Your task to perform on an android device: Open Amazon Image 0: 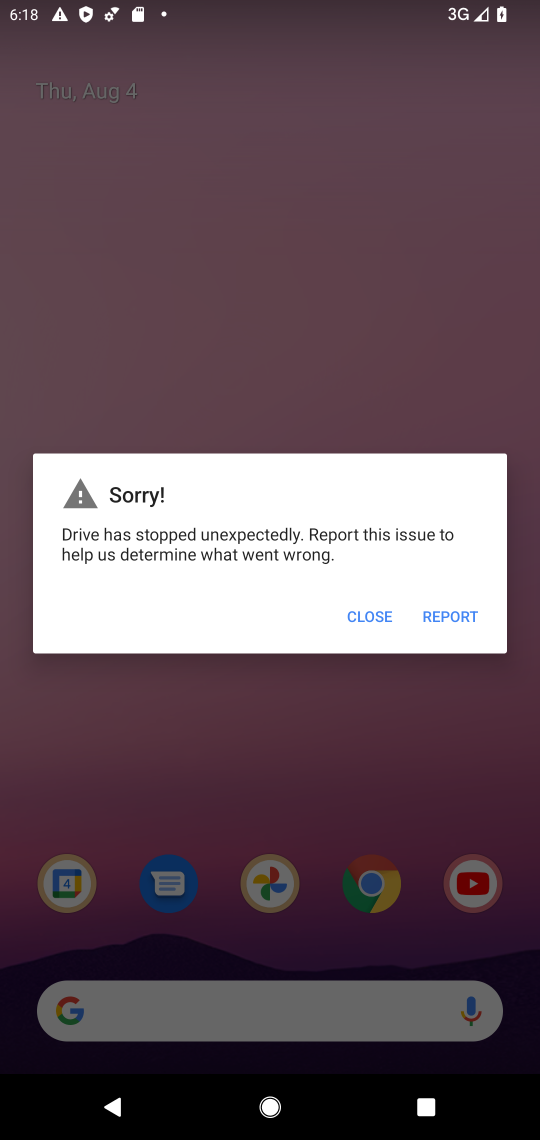
Step 0: press back button
Your task to perform on an android device: Open Amazon Image 1: 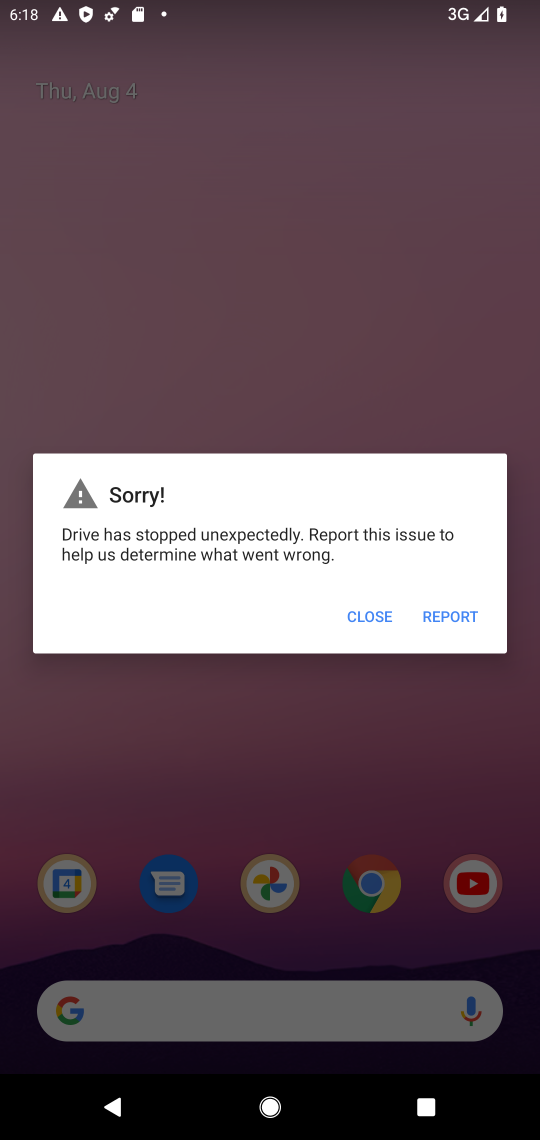
Step 1: click (374, 625)
Your task to perform on an android device: Open Amazon Image 2: 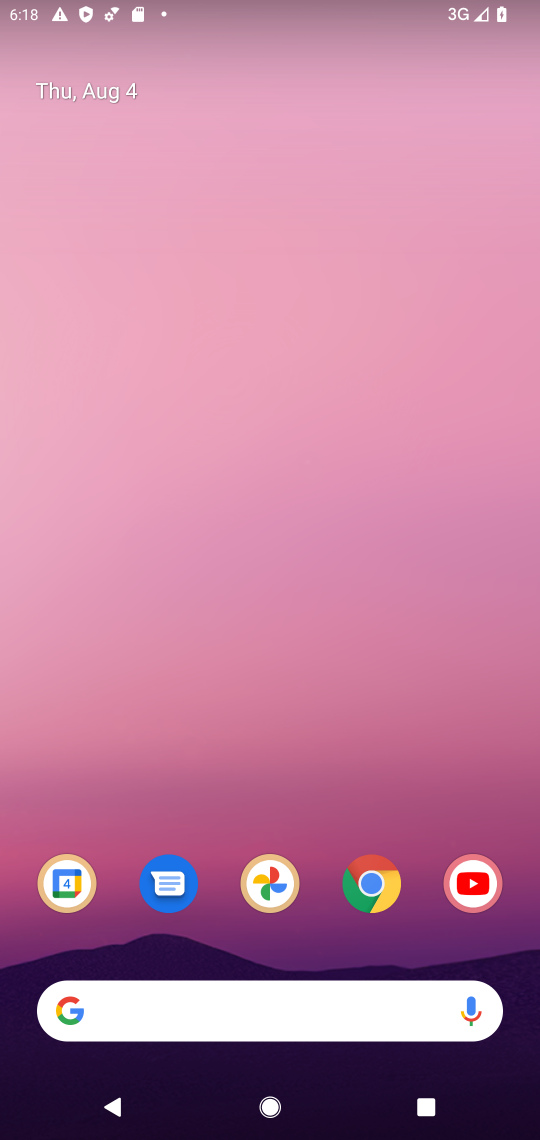
Step 2: click (376, 889)
Your task to perform on an android device: Open Amazon Image 3: 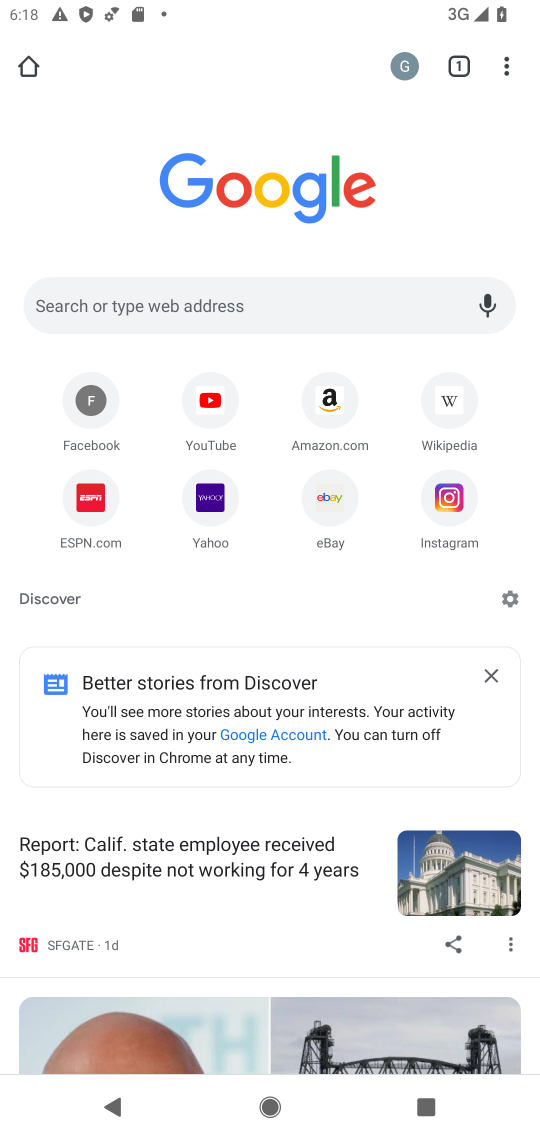
Step 3: click (318, 415)
Your task to perform on an android device: Open Amazon Image 4: 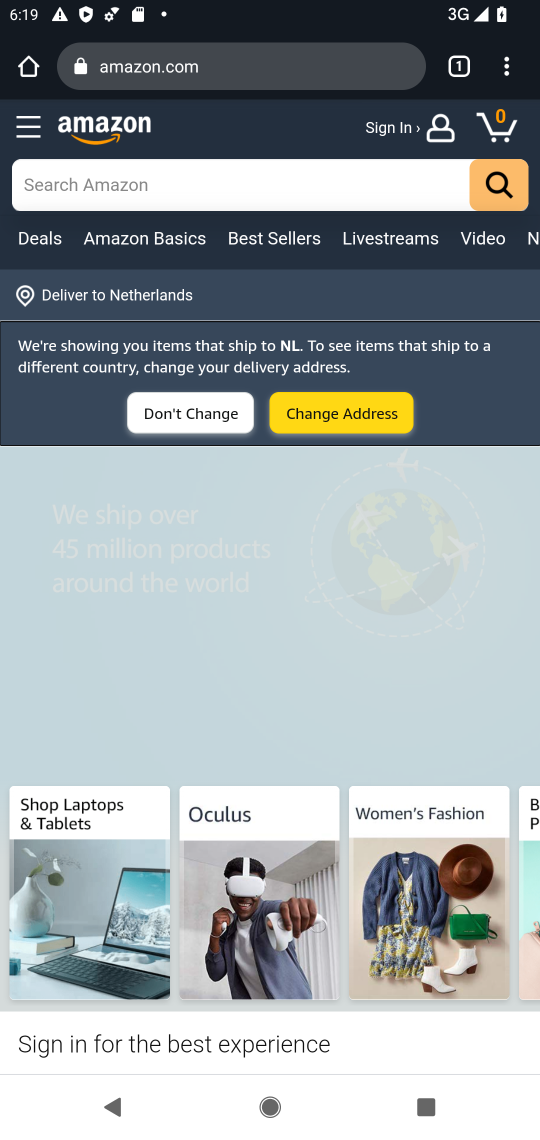
Step 4: task complete